Your task to perform on an android device: Go to Google Image 0: 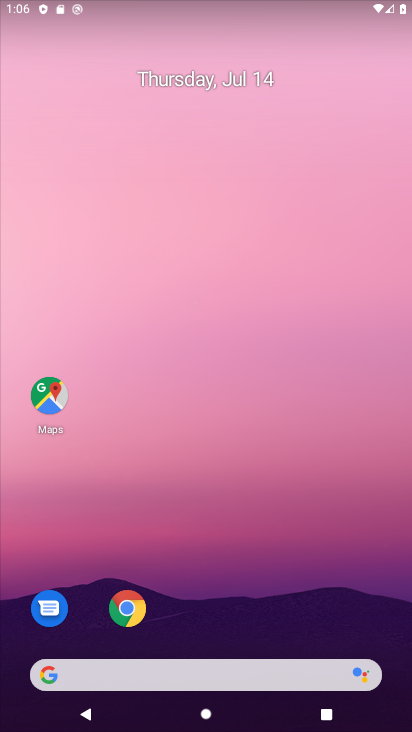
Step 0: drag from (253, 620) to (253, 281)
Your task to perform on an android device: Go to Google Image 1: 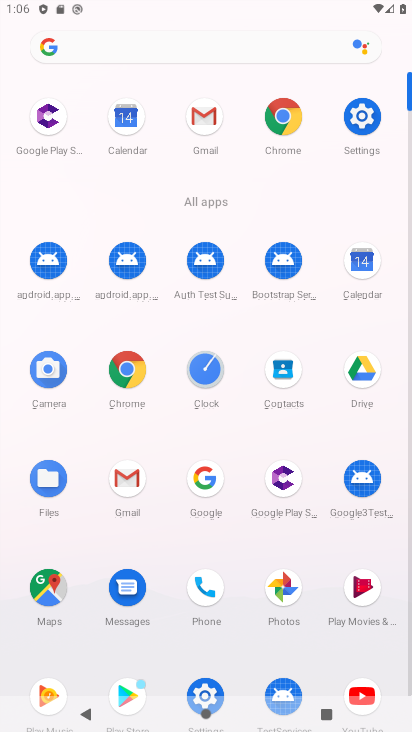
Step 1: click (191, 478)
Your task to perform on an android device: Go to Google Image 2: 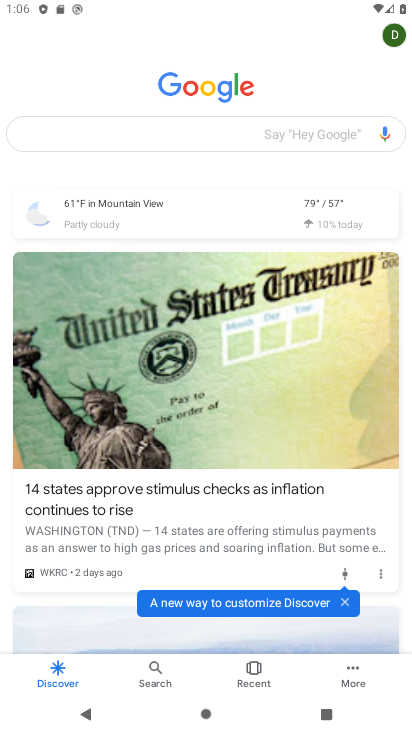
Step 2: task complete